Your task to perform on an android device: manage bookmarks in the chrome app Image 0: 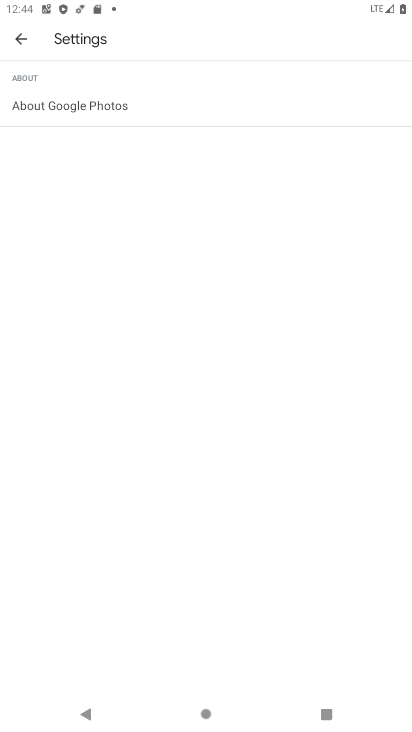
Step 0: press home button
Your task to perform on an android device: manage bookmarks in the chrome app Image 1: 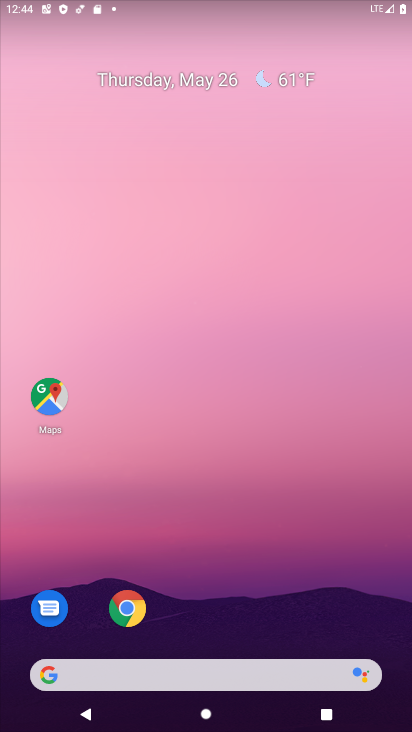
Step 1: click (126, 608)
Your task to perform on an android device: manage bookmarks in the chrome app Image 2: 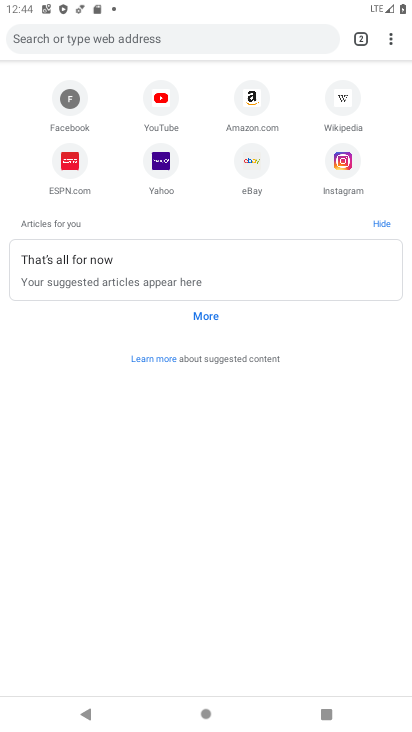
Step 2: click (388, 38)
Your task to perform on an android device: manage bookmarks in the chrome app Image 3: 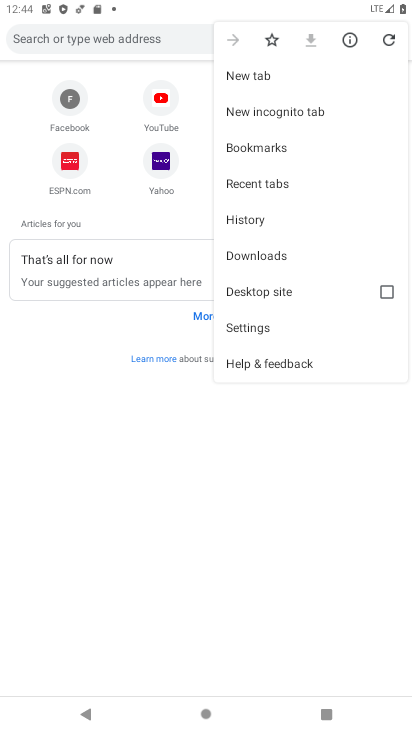
Step 3: click (248, 322)
Your task to perform on an android device: manage bookmarks in the chrome app Image 4: 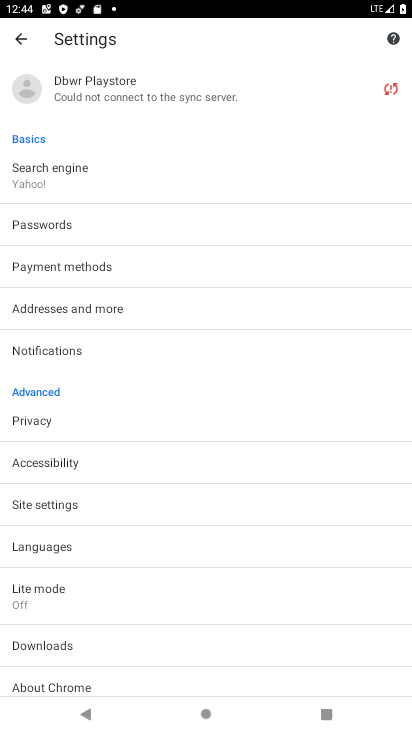
Step 4: press back button
Your task to perform on an android device: manage bookmarks in the chrome app Image 5: 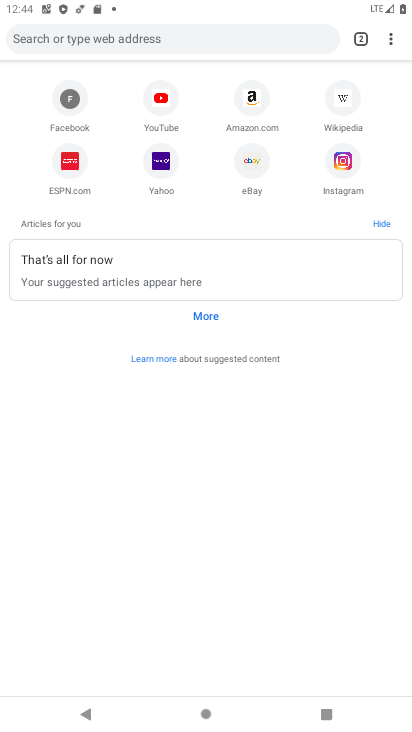
Step 5: click (389, 42)
Your task to perform on an android device: manage bookmarks in the chrome app Image 6: 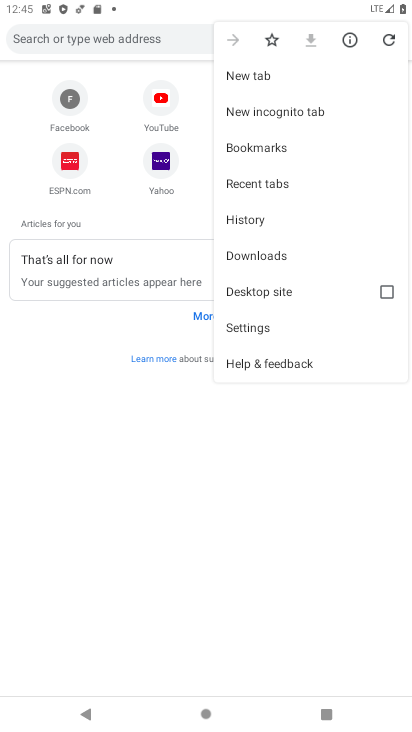
Step 6: click (260, 146)
Your task to perform on an android device: manage bookmarks in the chrome app Image 7: 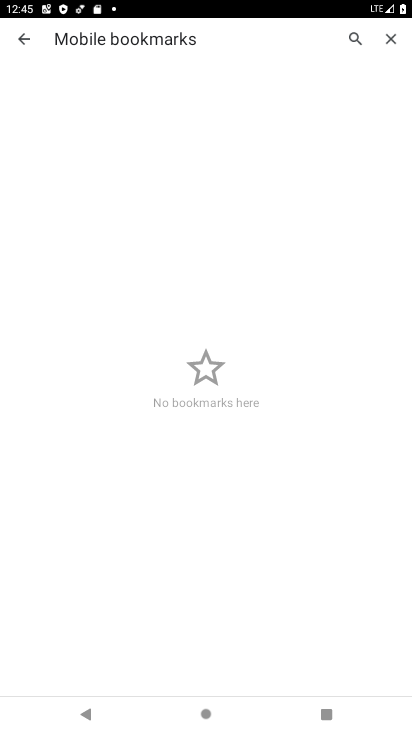
Step 7: task complete